Your task to perform on an android device: Go to settings Image 0: 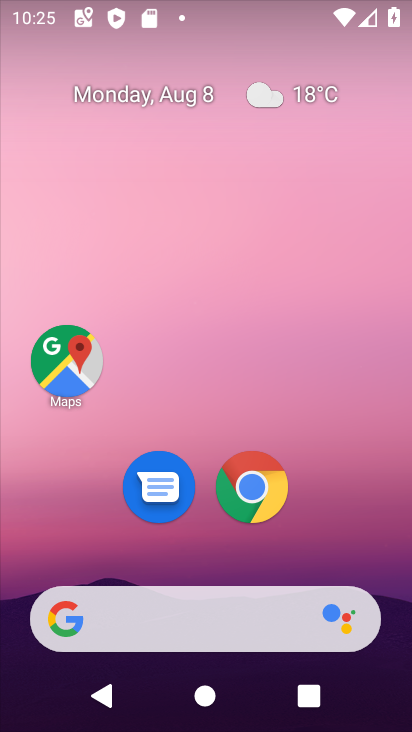
Step 0: drag from (208, 551) to (210, 88)
Your task to perform on an android device: Go to settings Image 1: 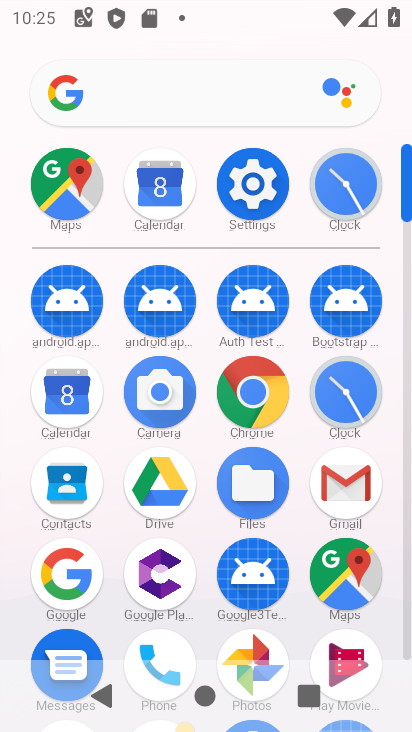
Step 1: click (253, 180)
Your task to perform on an android device: Go to settings Image 2: 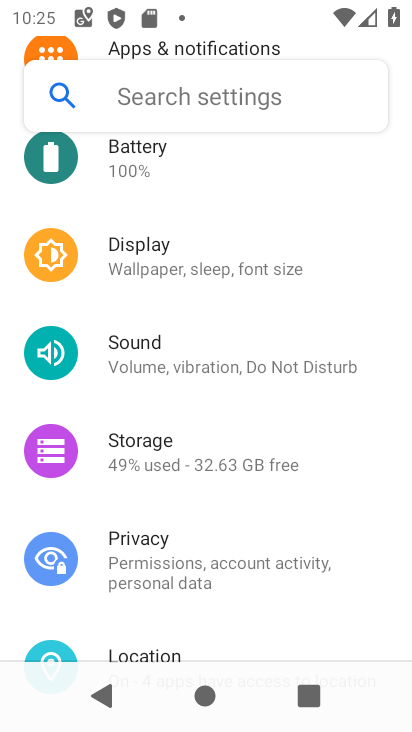
Step 2: task complete